Your task to perform on an android device: Go to internet settings Image 0: 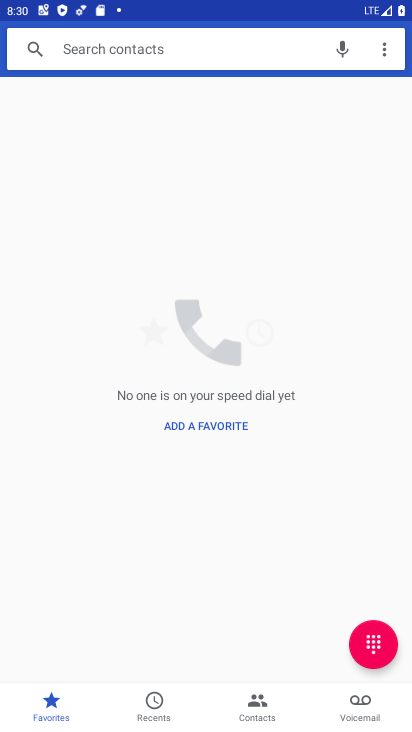
Step 0: press home button
Your task to perform on an android device: Go to internet settings Image 1: 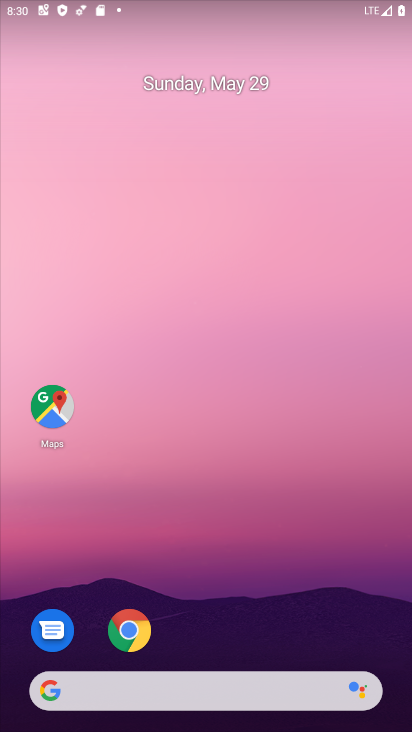
Step 1: drag from (218, 661) to (246, 5)
Your task to perform on an android device: Go to internet settings Image 2: 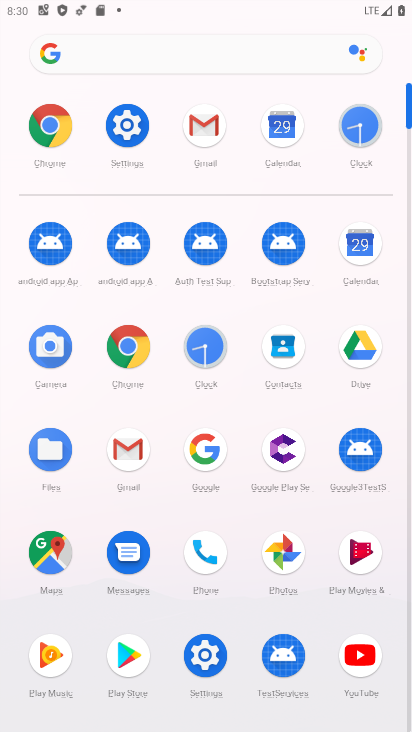
Step 2: click (117, 153)
Your task to perform on an android device: Go to internet settings Image 3: 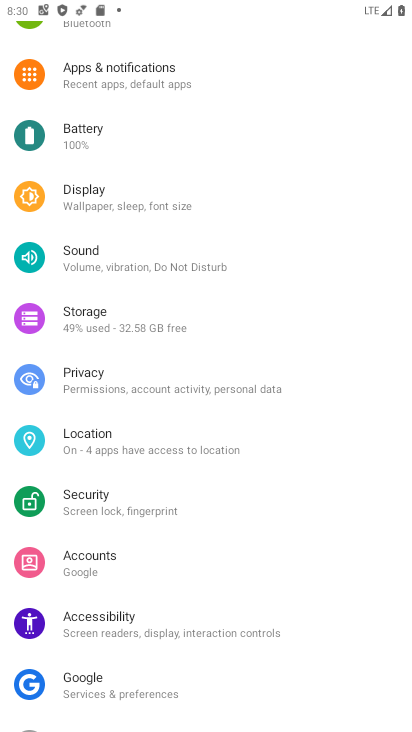
Step 3: drag from (117, 153) to (25, 552)
Your task to perform on an android device: Go to internet settings Image 4: 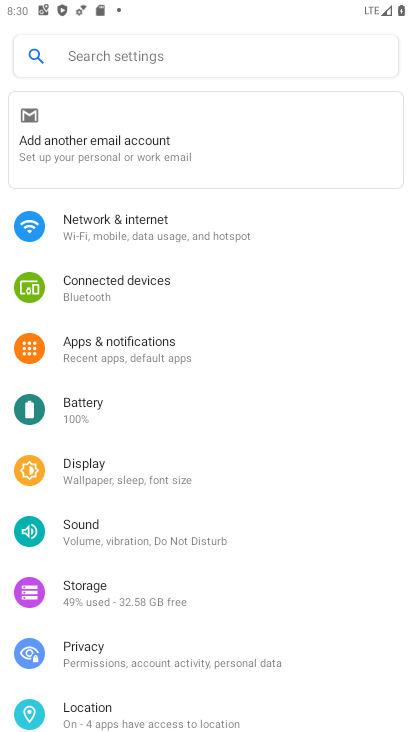
Step 4: click (155, 218)
Your task to perform on an android device: Go to internet settings Image 5: 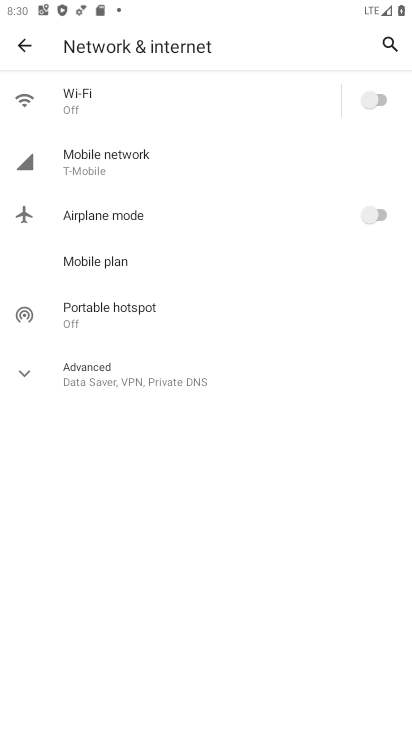
Step 5: click (114, 141)
Your task to perform on an android device: Go to internet settings Image 6: 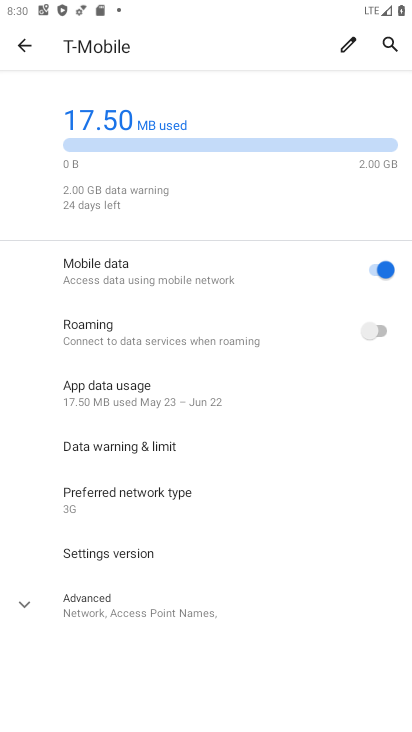
Step 6: click (99, 609)
Your task to perform on an android device: Go to internet settings Image 7: 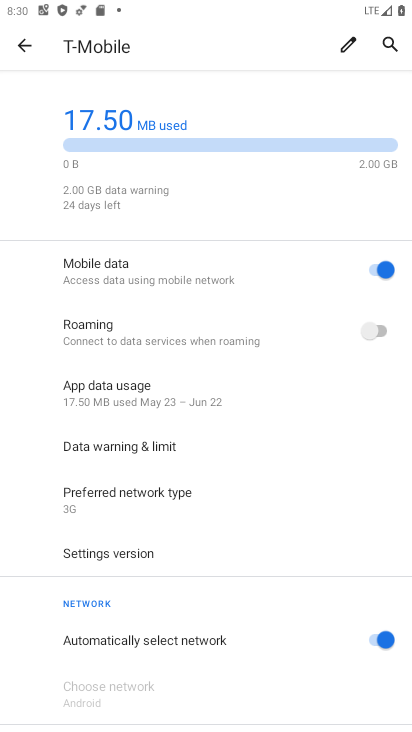
Step 7: task complete